Your task to perform on an android device: What's the weather going to be tomorrow? Image 0: 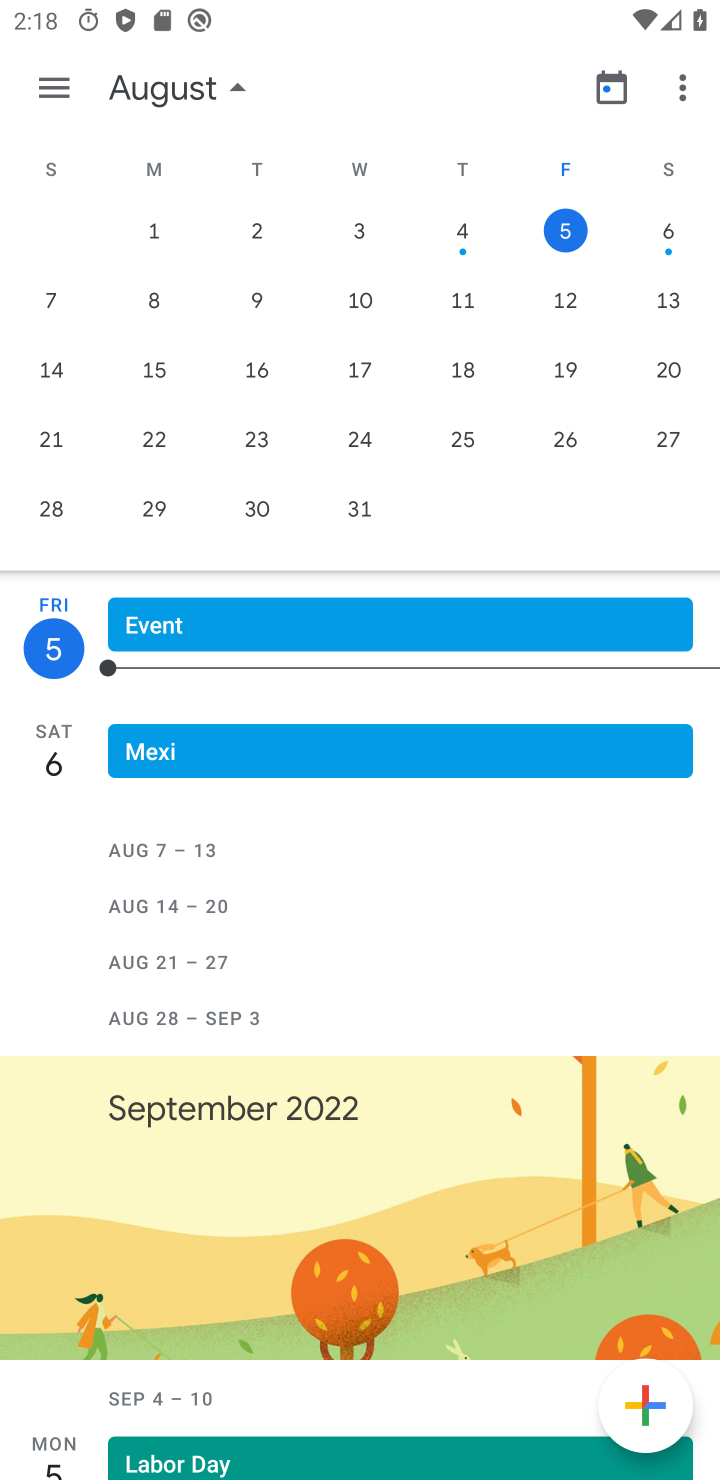
Step 0: drag from (497, 60) to (432, 13)
Your task to perform on an android device: What's the weather going to be tomorrow? Image 1: 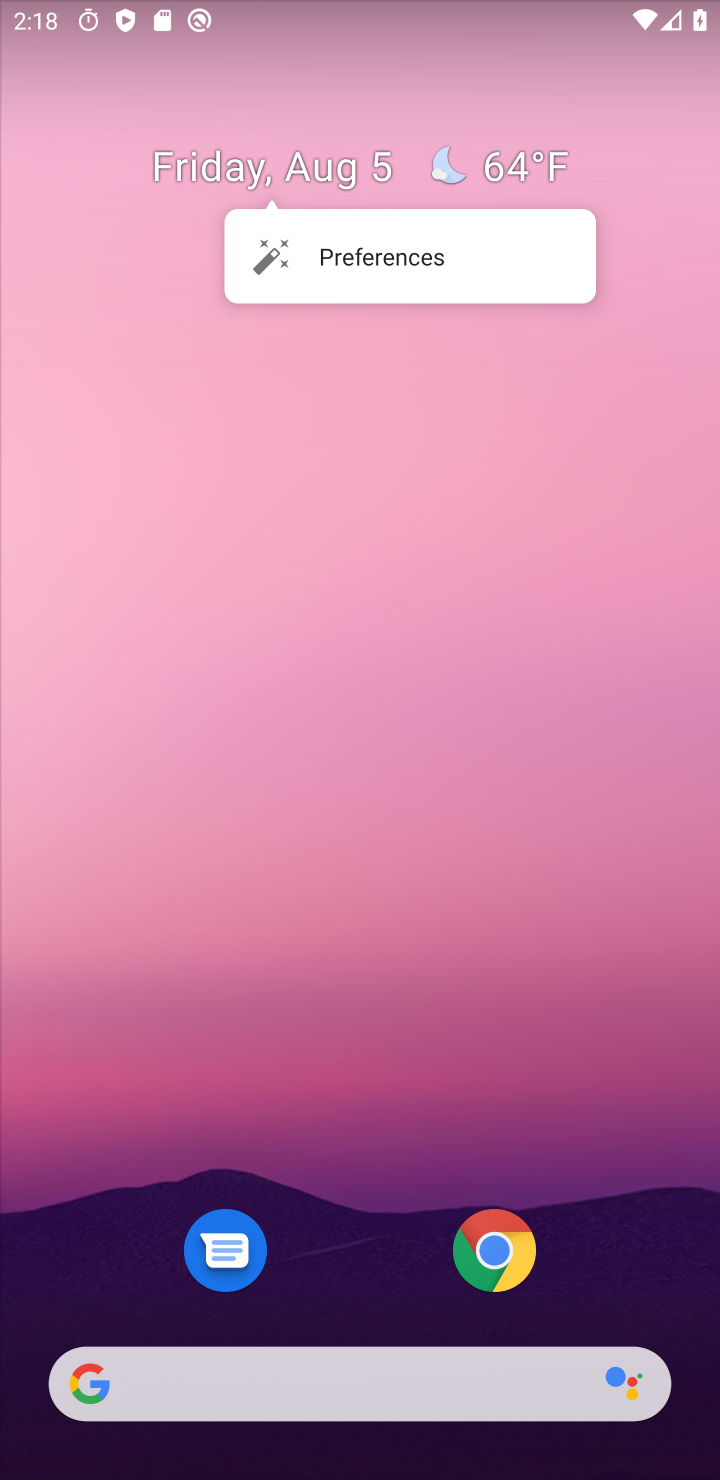
Step 1: drag from (362, 1298) to (440, 330)
Your task to perform on an android device: What's the weather going to be tomorrow? Image 2: 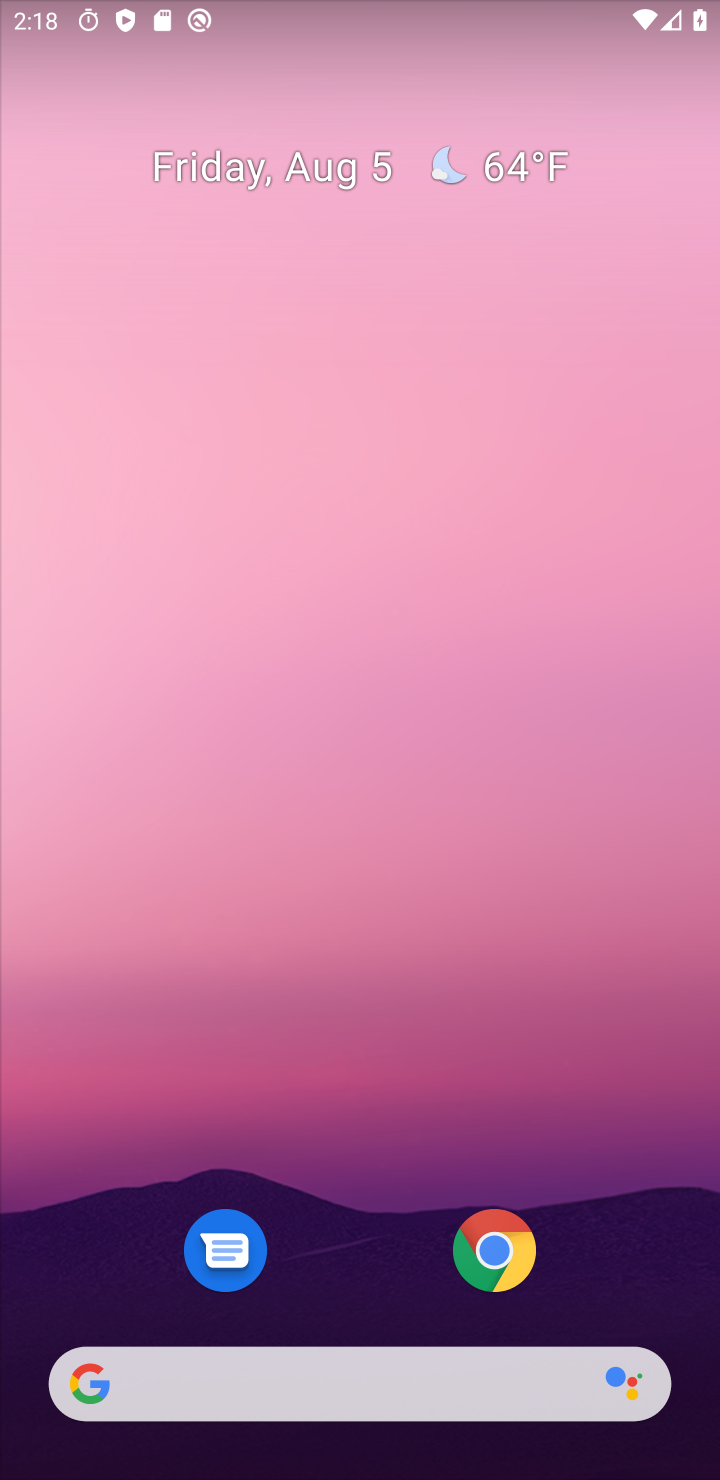
Step 2: drag from (367, 1211) to (459, 130)
Your task to perform on an android device: What's the weather going to be tomorrow? Image 3: 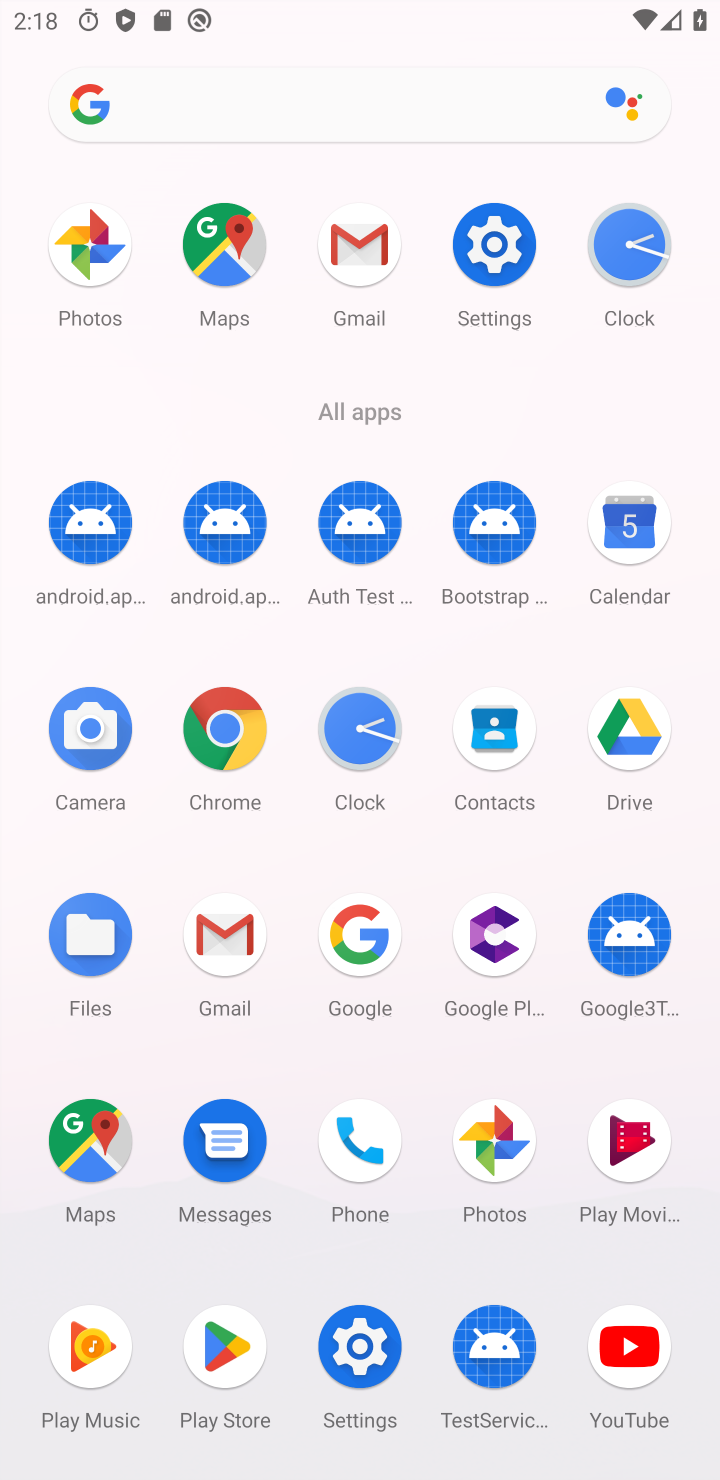
Step 3: click (614, 514)
Your task to perform on an android device: What's the weather going to be tomorrow? Image 4: 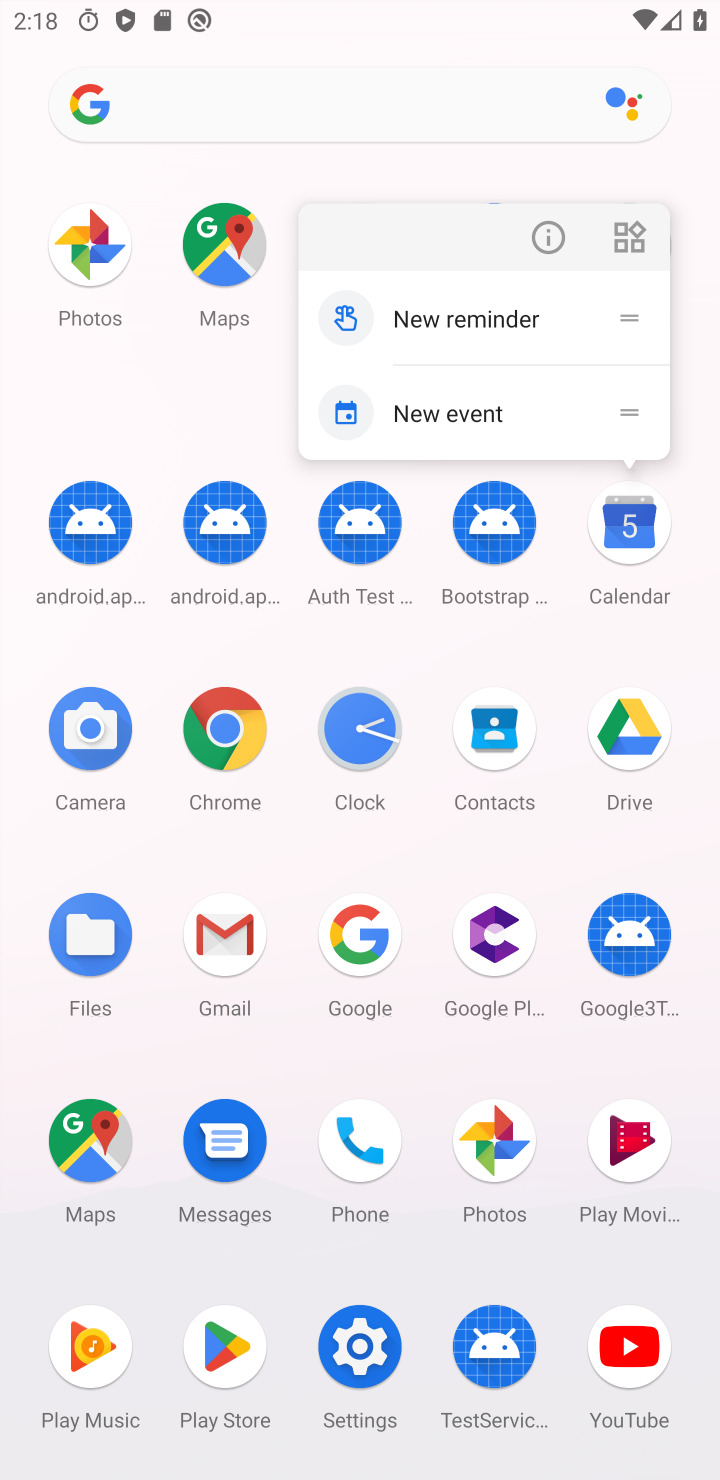
Step 4: click (542, 246)
Your task to perform on an android device: What's the weather going to be tomorrow? Image 5: 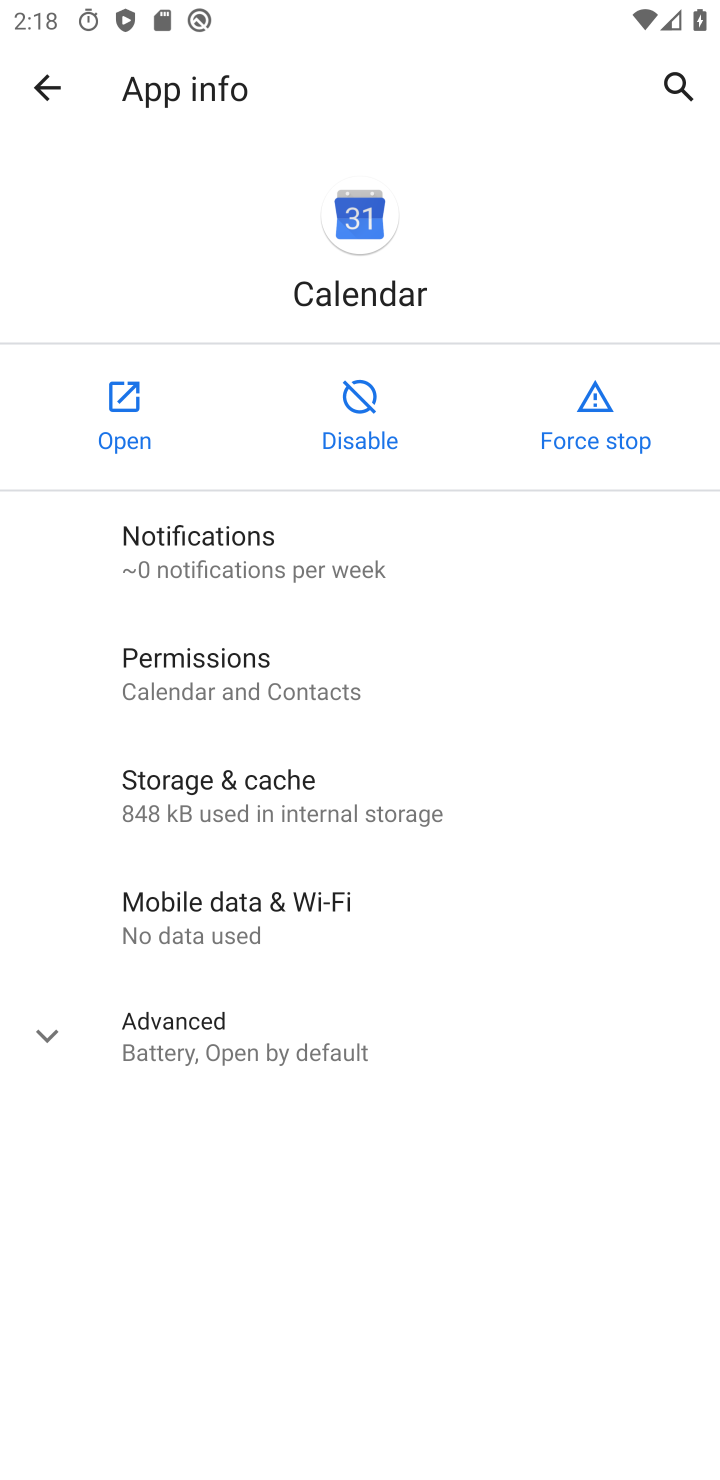
Step 5: click (120, 438)
Your task to perform on an android device: What's the weather going to be tomorrow? Image 6: 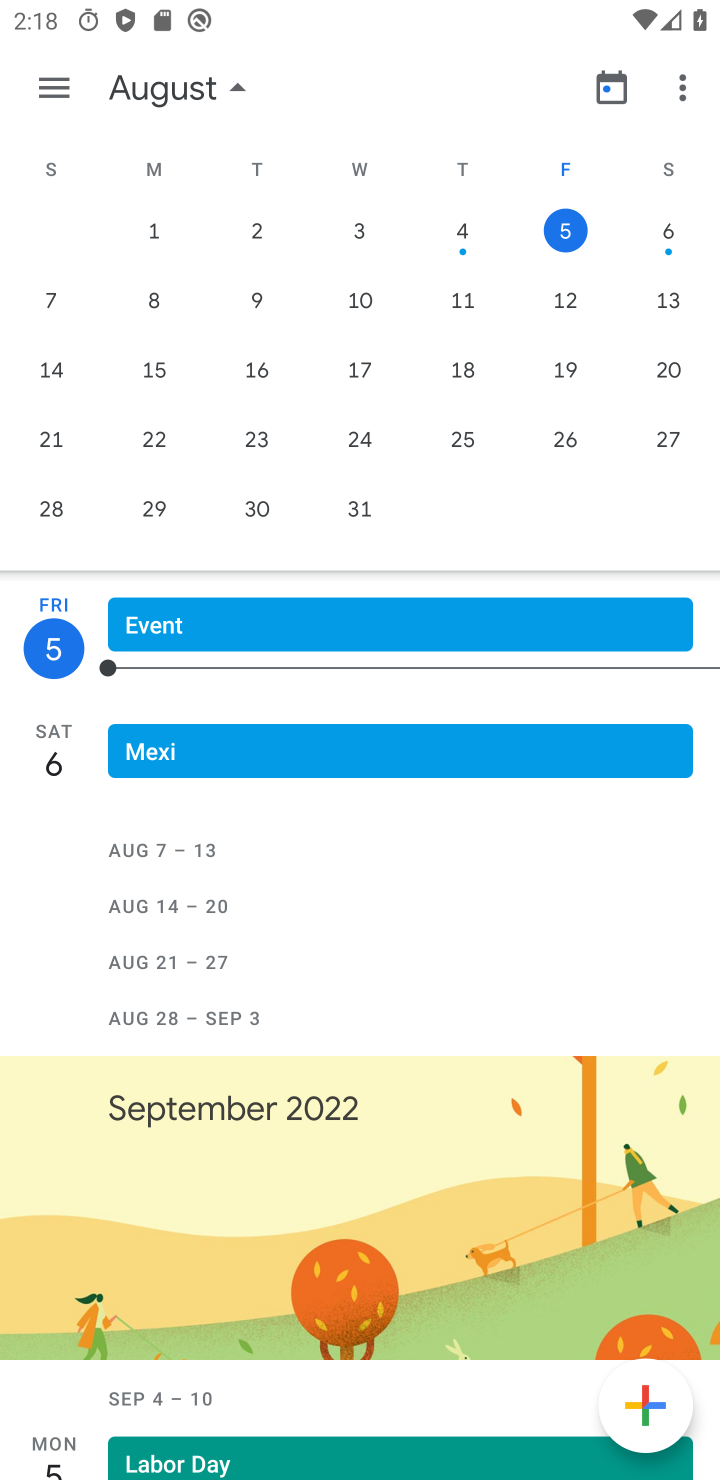
Step 6: press home button
Your task to perform on an android device: What's the weather going to be tomorrow? Image 7: 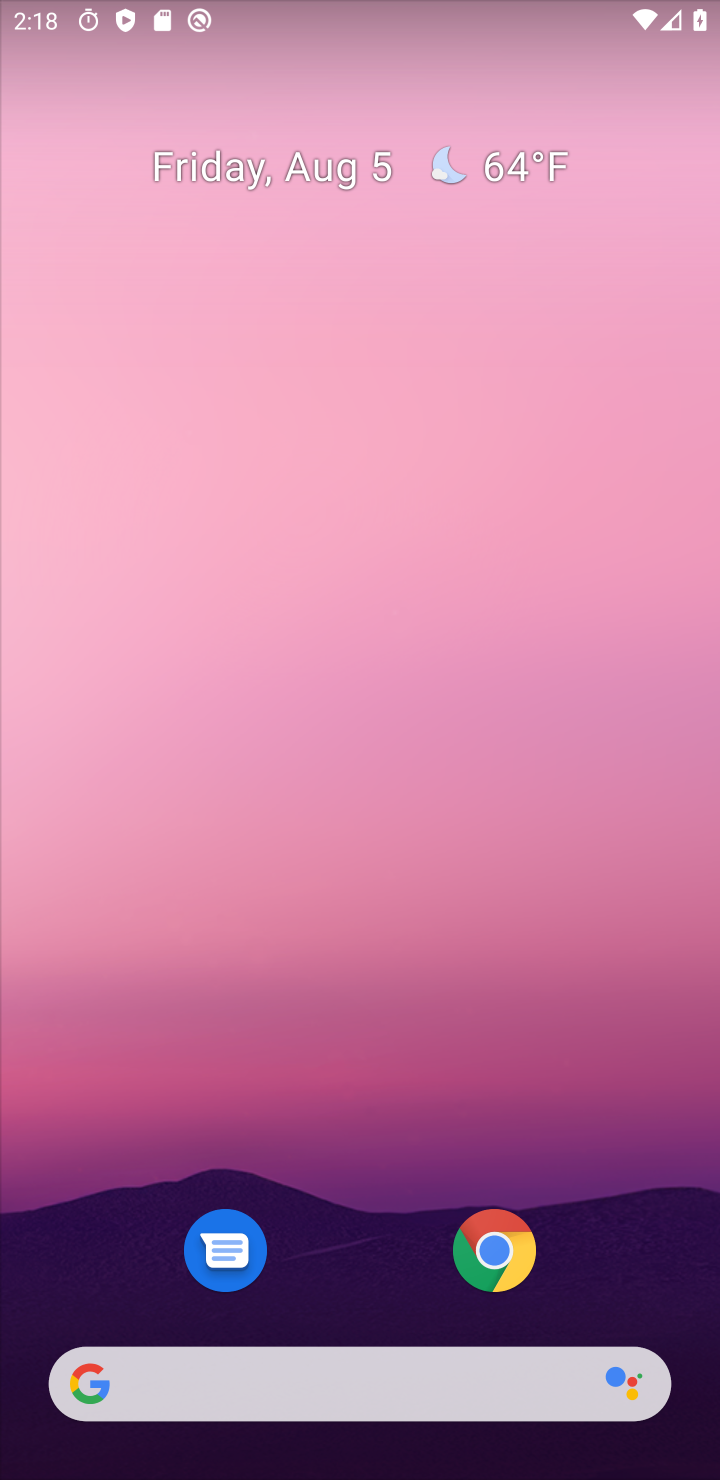
Step 7: click (284, 1393)
Your task to perform on an android device: What's the weather going to be tomorrow? Image 8: 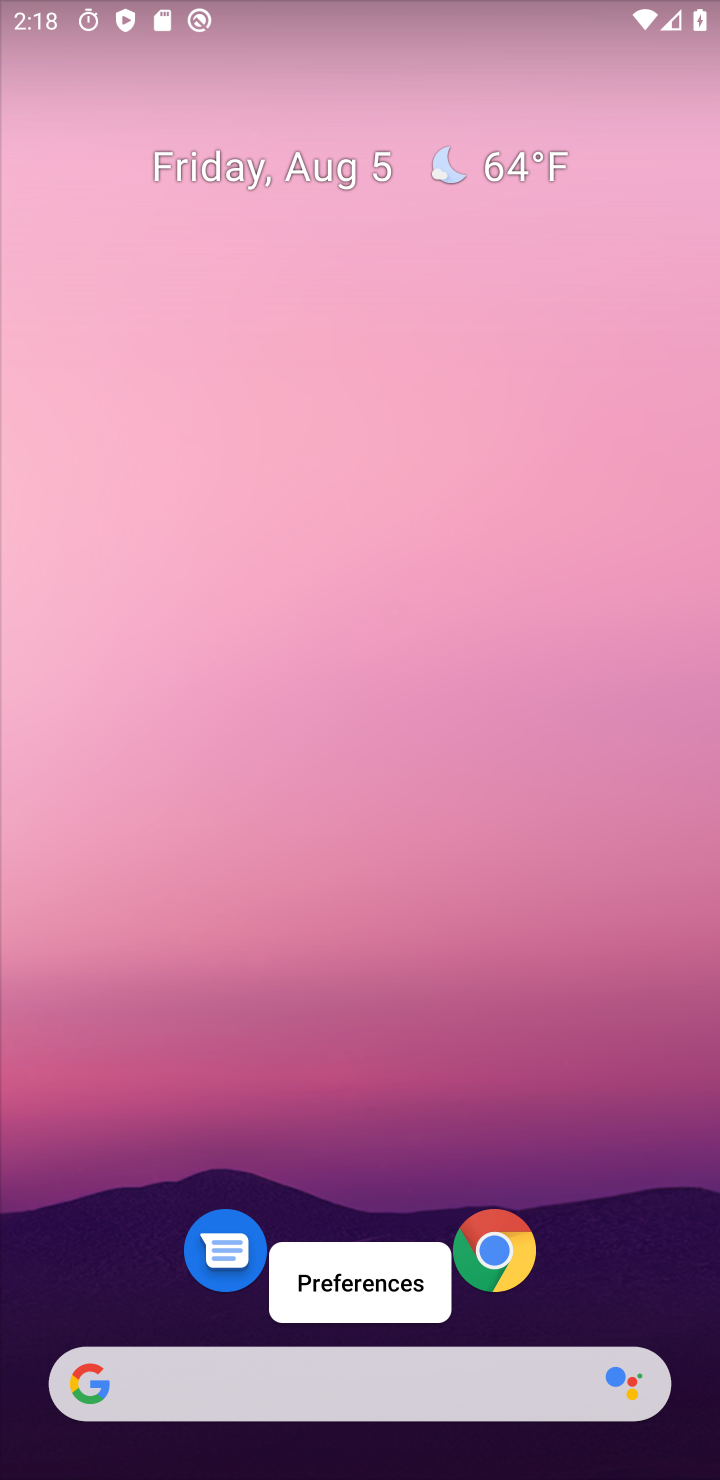
Step 8: click (336, 1356)
Your task to perform on an android device: What's the weather going to be tomorrow? Image 9: 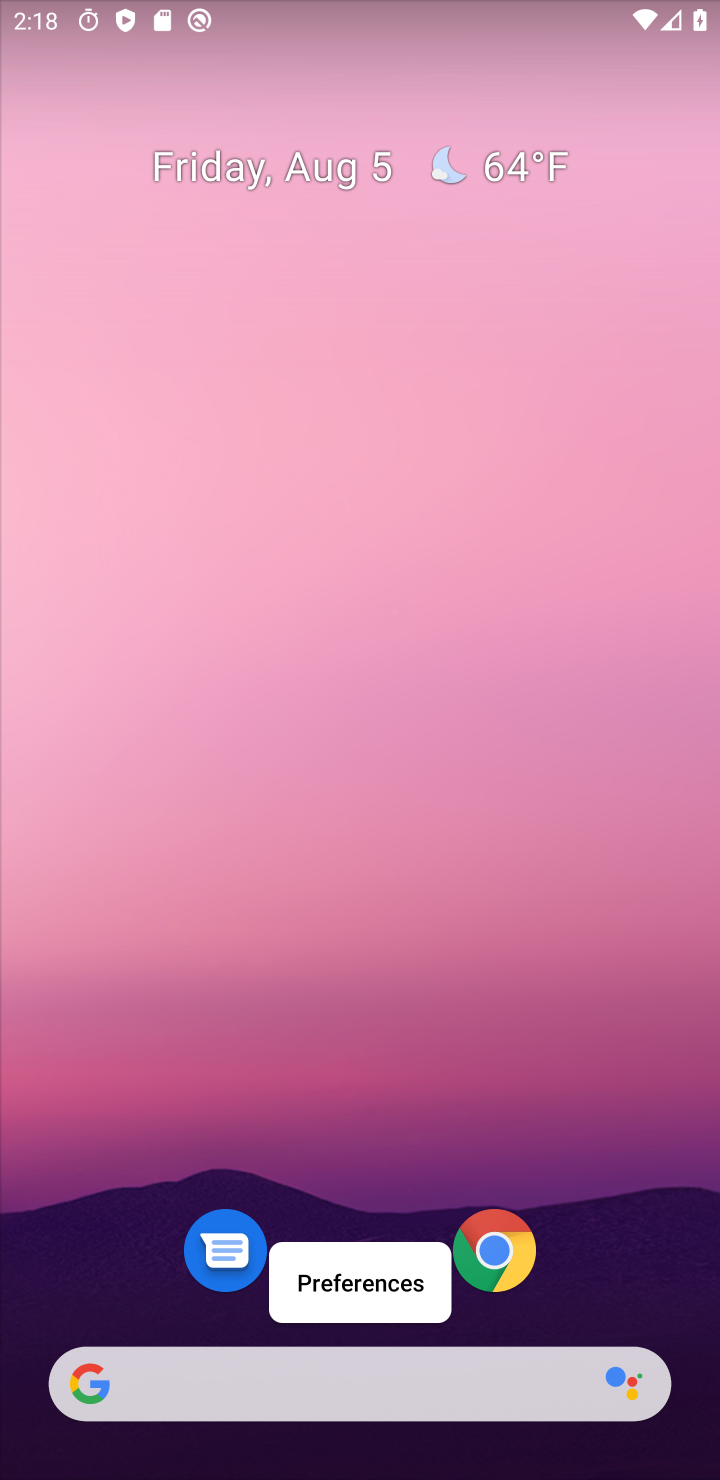
Step 9: click (336, 1356)
Your task to perform on an android device: What's the weather going to be tomorrow? Image 10: 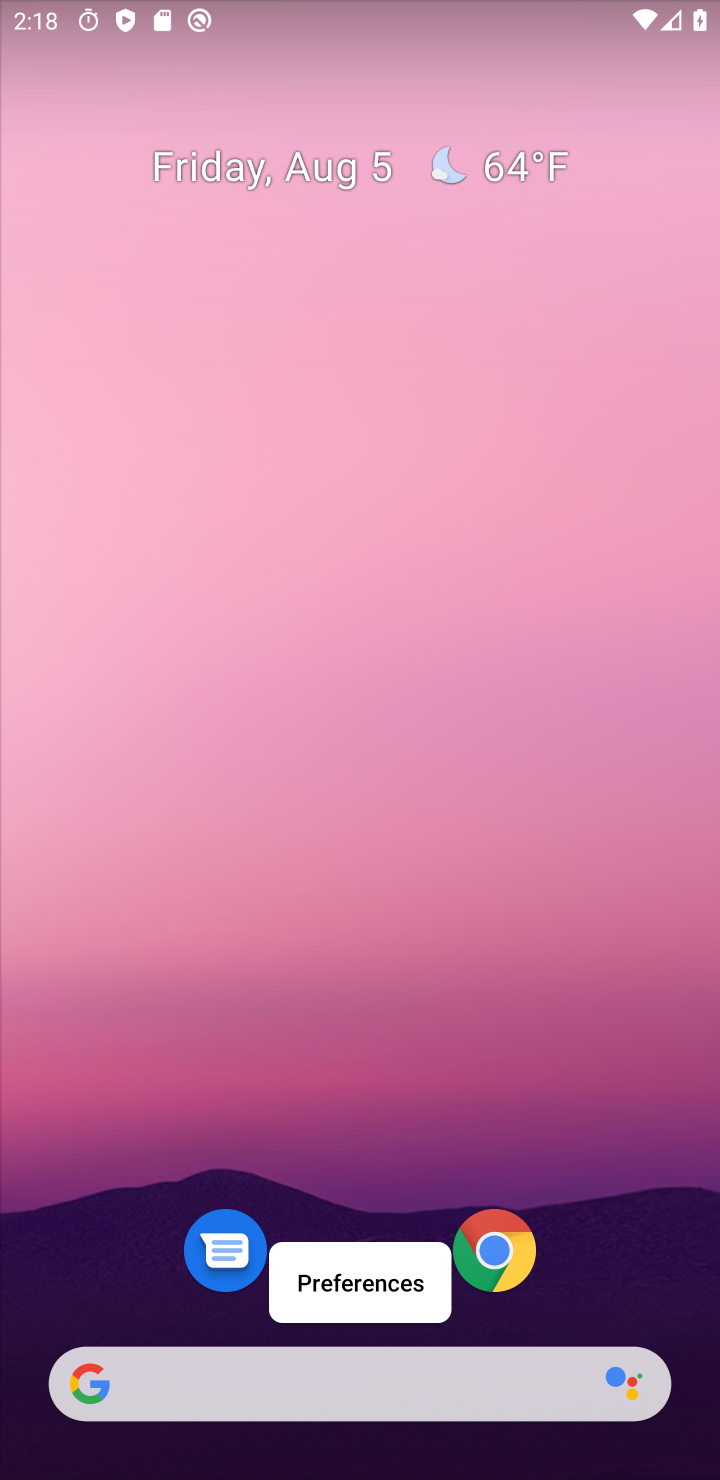
Step 10: click (498, 1244)
Your task to perform on an android device: What's the weather going to be tomorrow? Image 11: 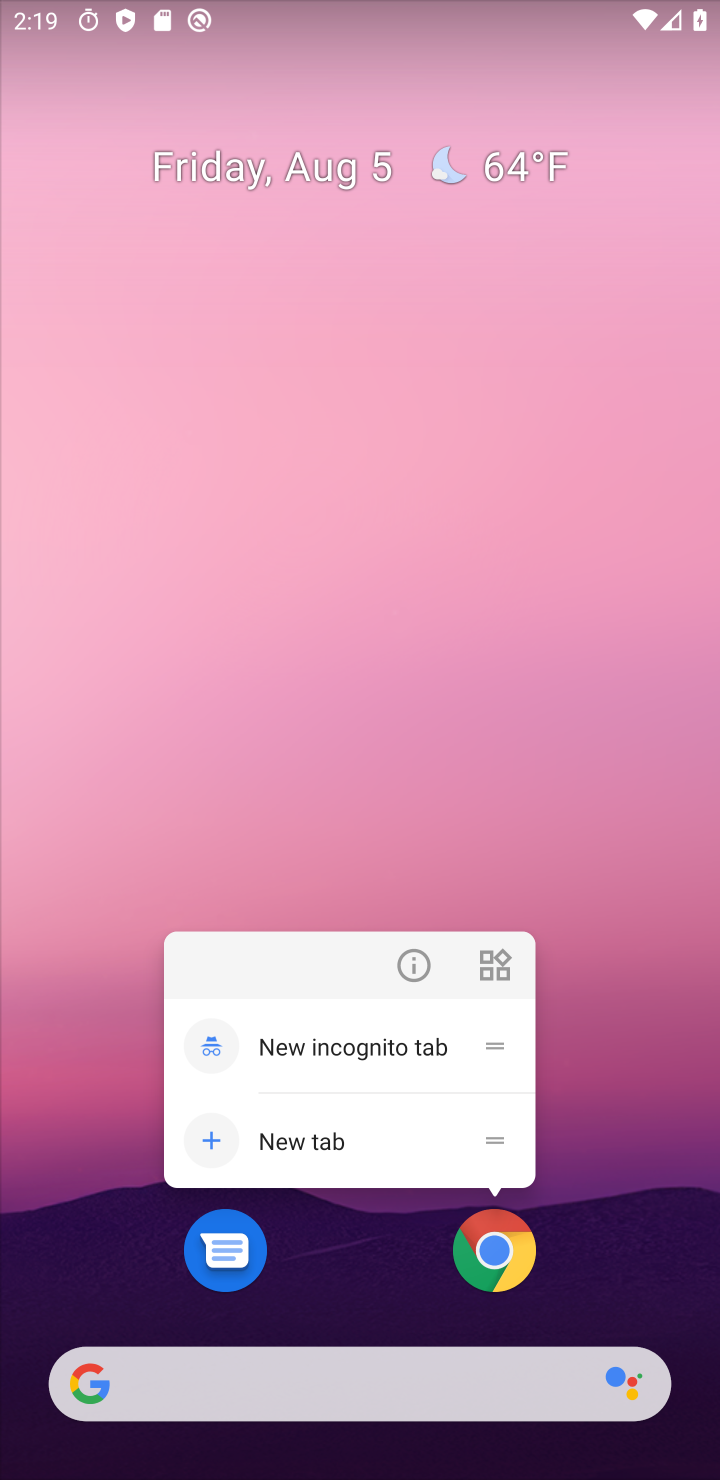
Step 11: click (413, 965)
Your task to perform on an android device: What's the weather going to be tomorrow? Image 12: 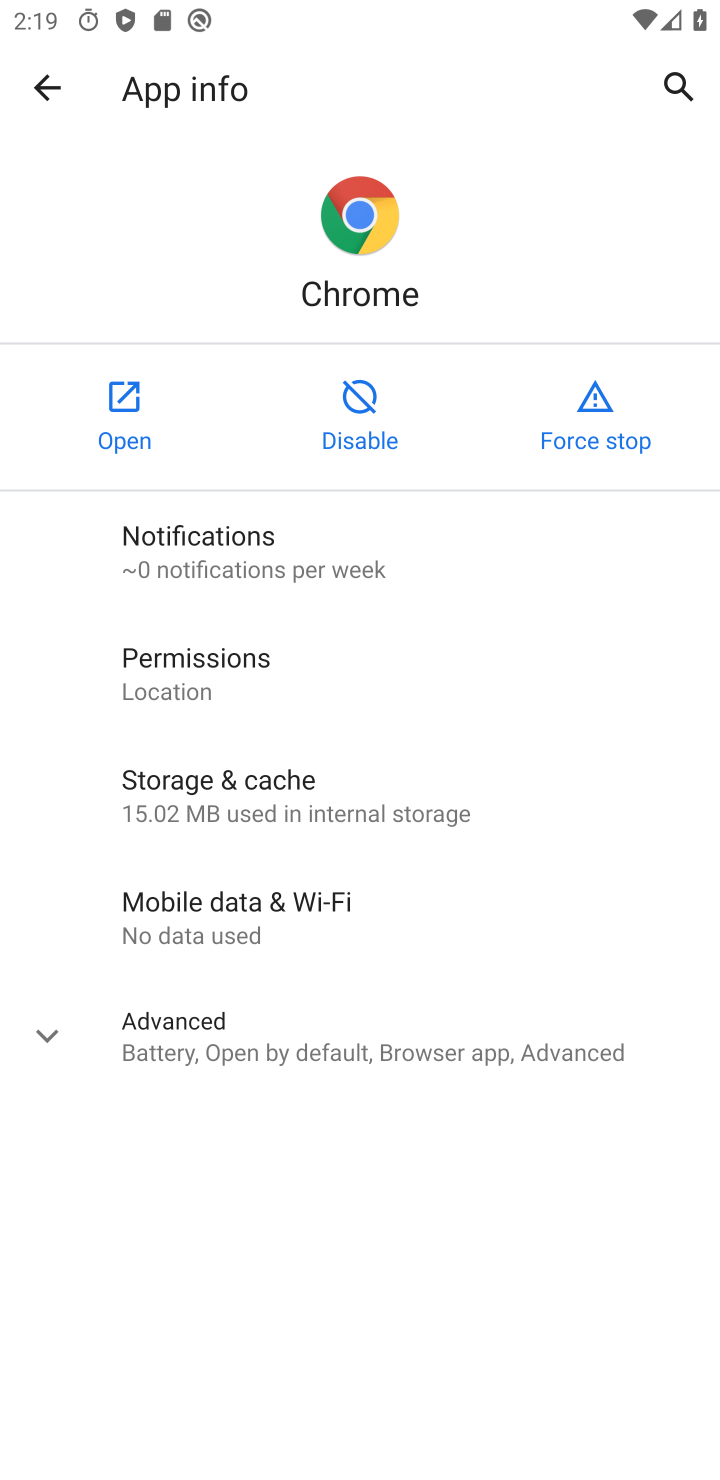
Step 12: click (127, 430)
Your task to perform on an android device: What's the weather going to be tomorrow? Image 13: 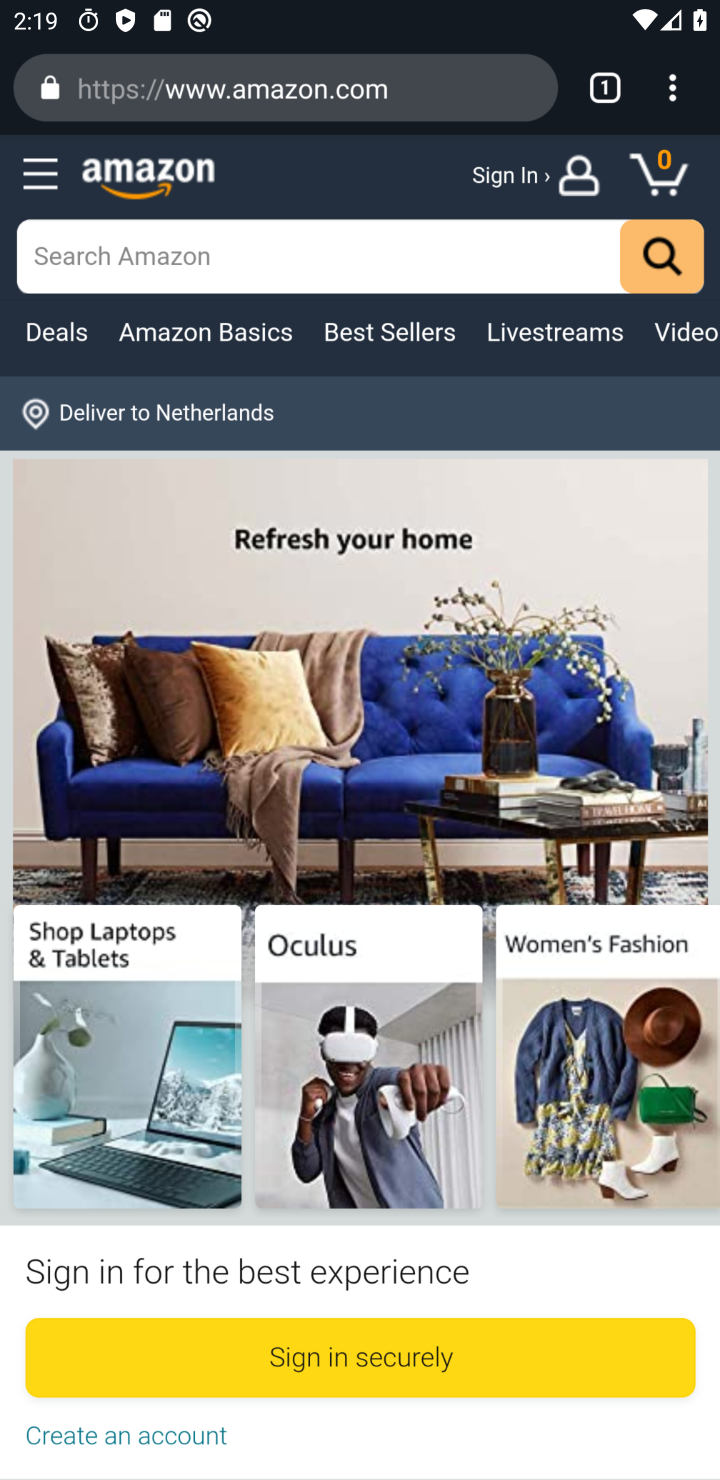
Step 13: drag from (442, 1129) to (526, 767)
Your task to perform on an android device: What's the weather going to be tomorrow? Image 14: 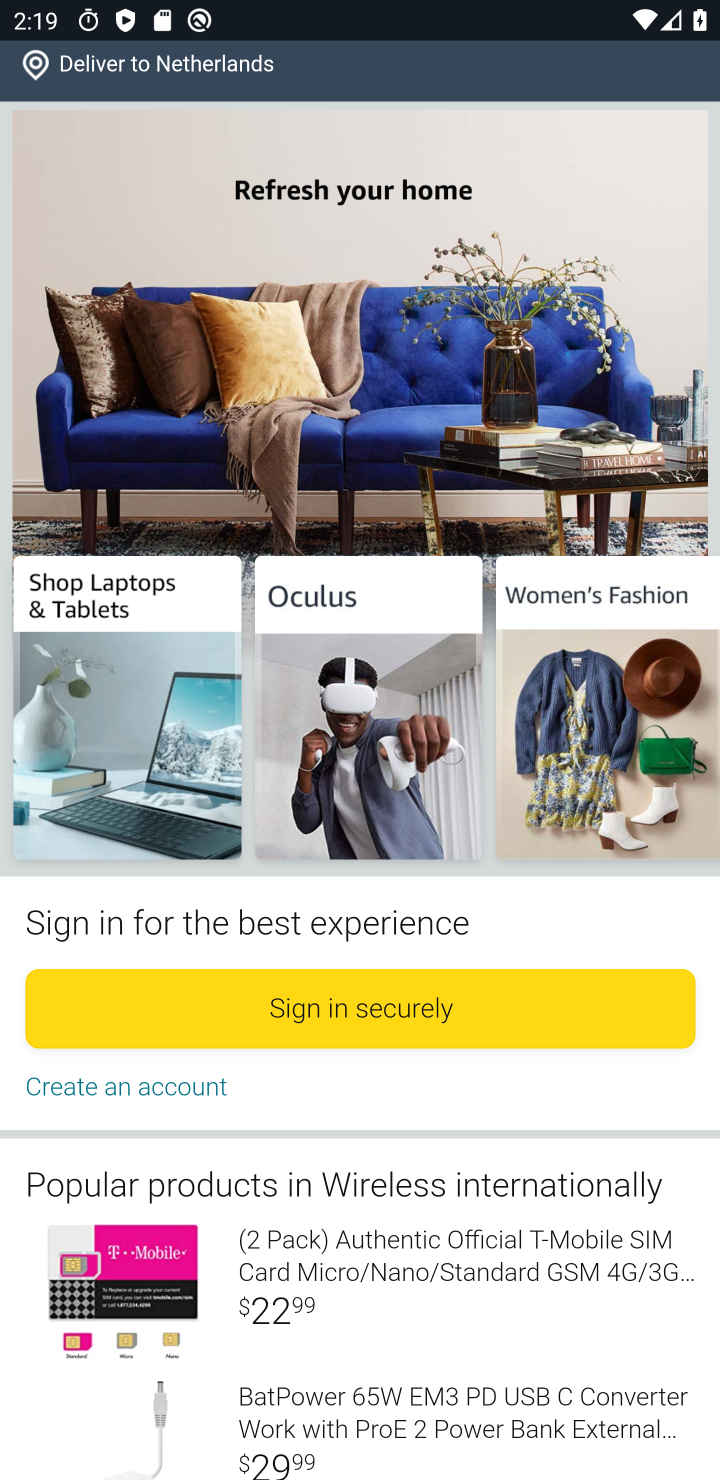
Step 14: drag from (315, 233) to (480, 1386)
Your task to perform on an android device: What's the weather going to be tomorrow? Image 15: 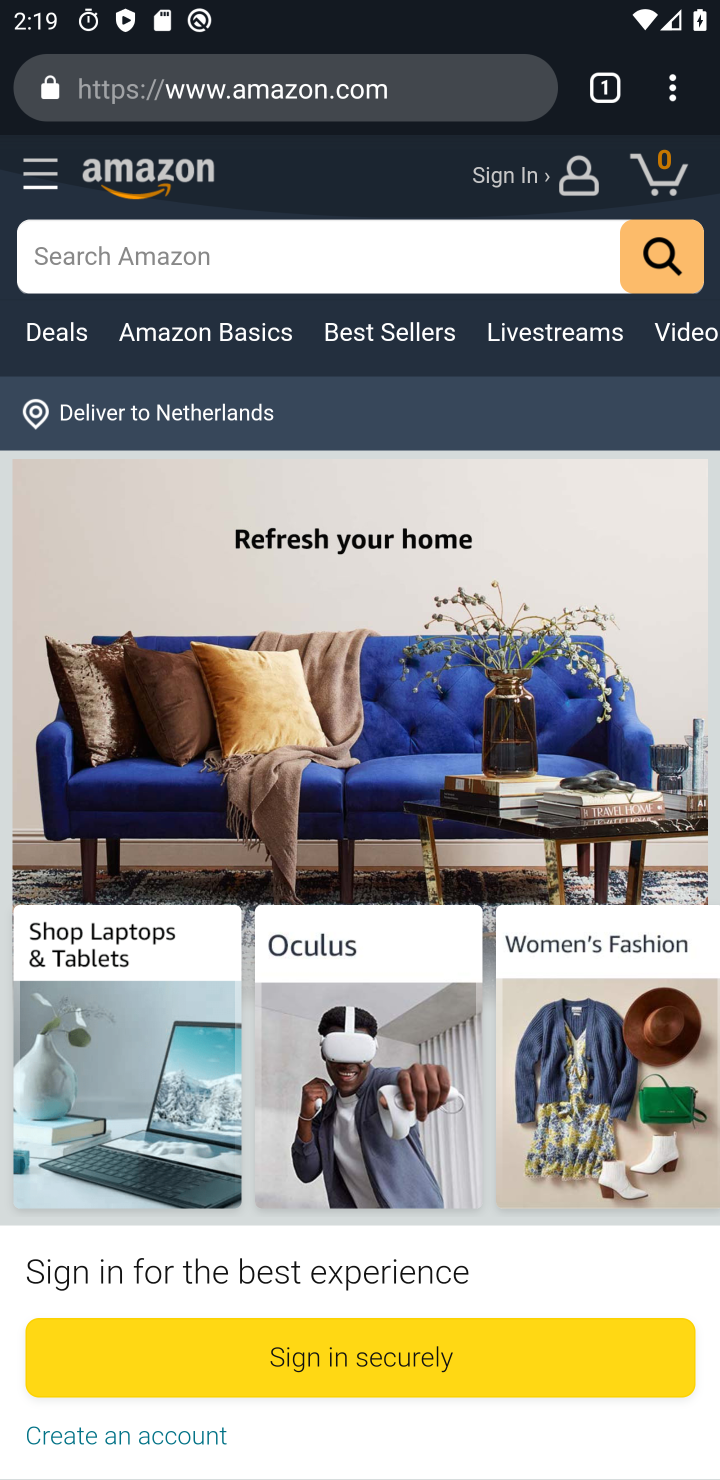
Step 15: drag from (350, 265) to (304, 95)
Your task to perform on an android device: What's the weather going to be tomorrow? Image 16: 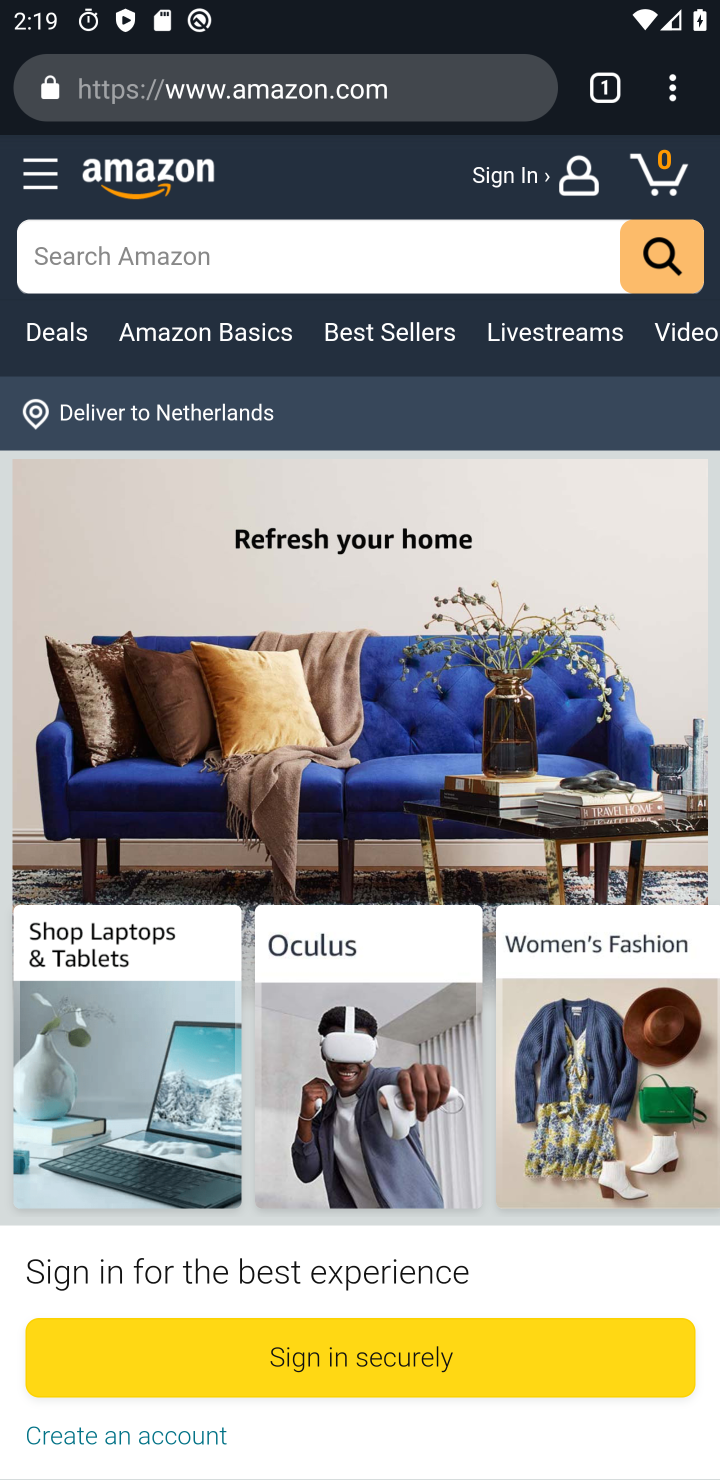
Step 16: click (304, 95)
Your task to perform on an android device: What's the weather going to be tomorrow? Image 17: 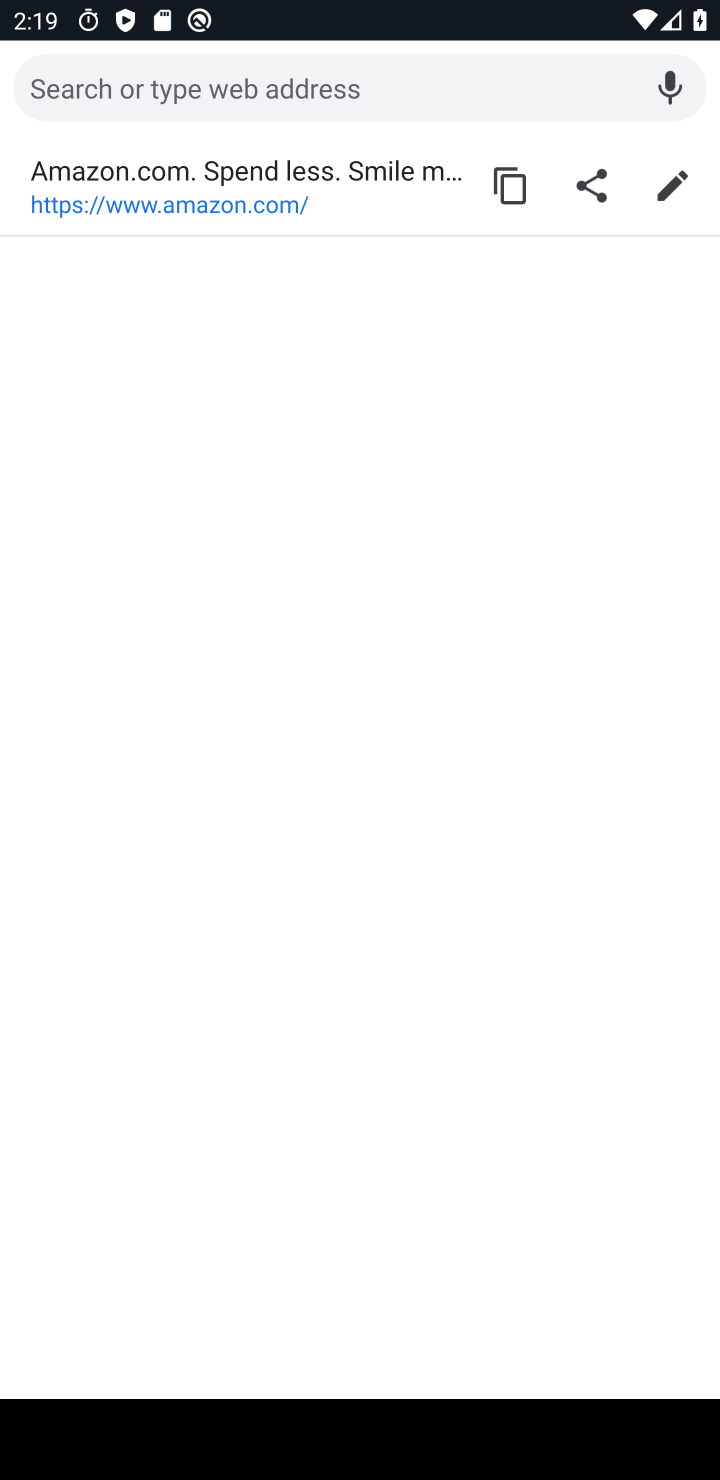
Step 17: type "What's the weather going to be tomorrow?"
Your task to perform on an android device: What's the weather going to be tomorrow? Image 18: 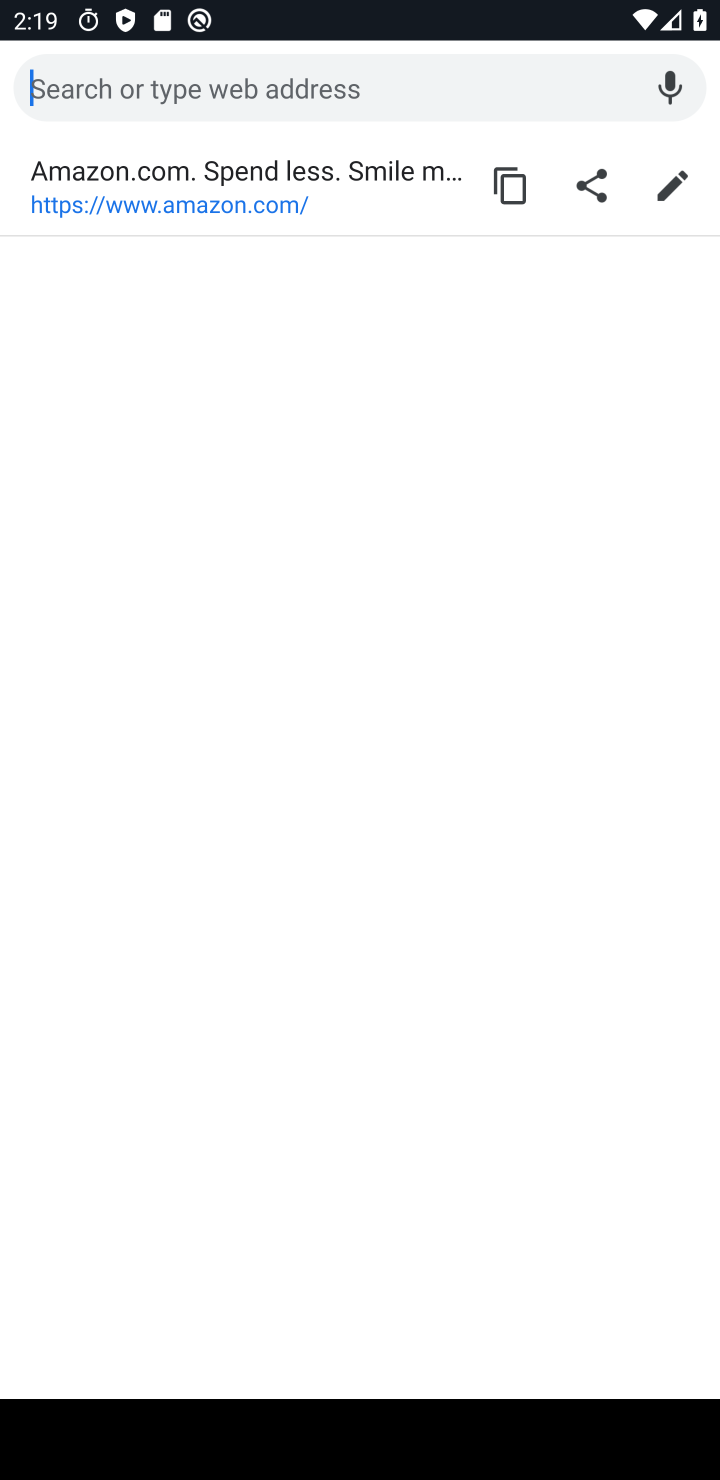
Step 18: drag from (439, 1207) to (355, 366)
Your task to perform on an android device: What's the weather going to be tomorrow? Image 19: 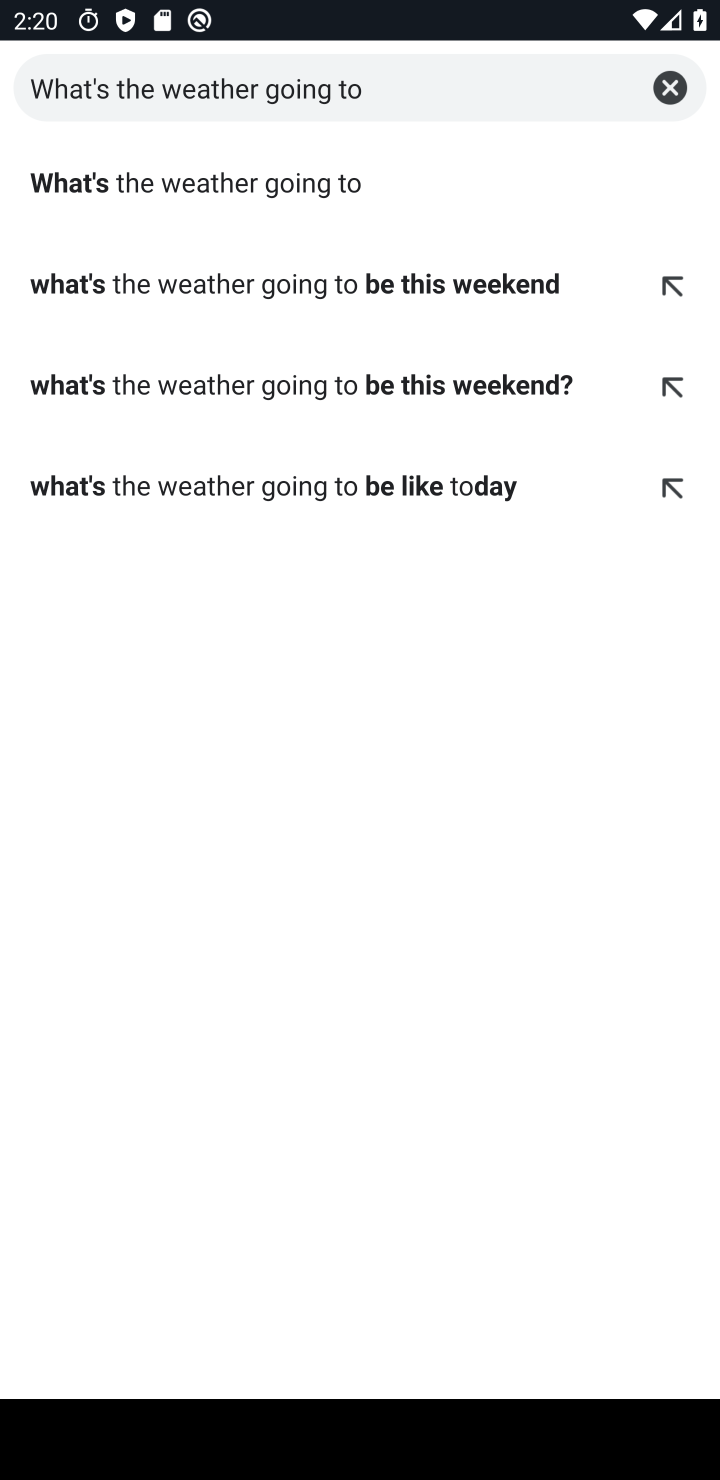
Step 19: click (216, 200)
Your task to perform on an android device: What's the weather going to be tomorrow? Image 20: 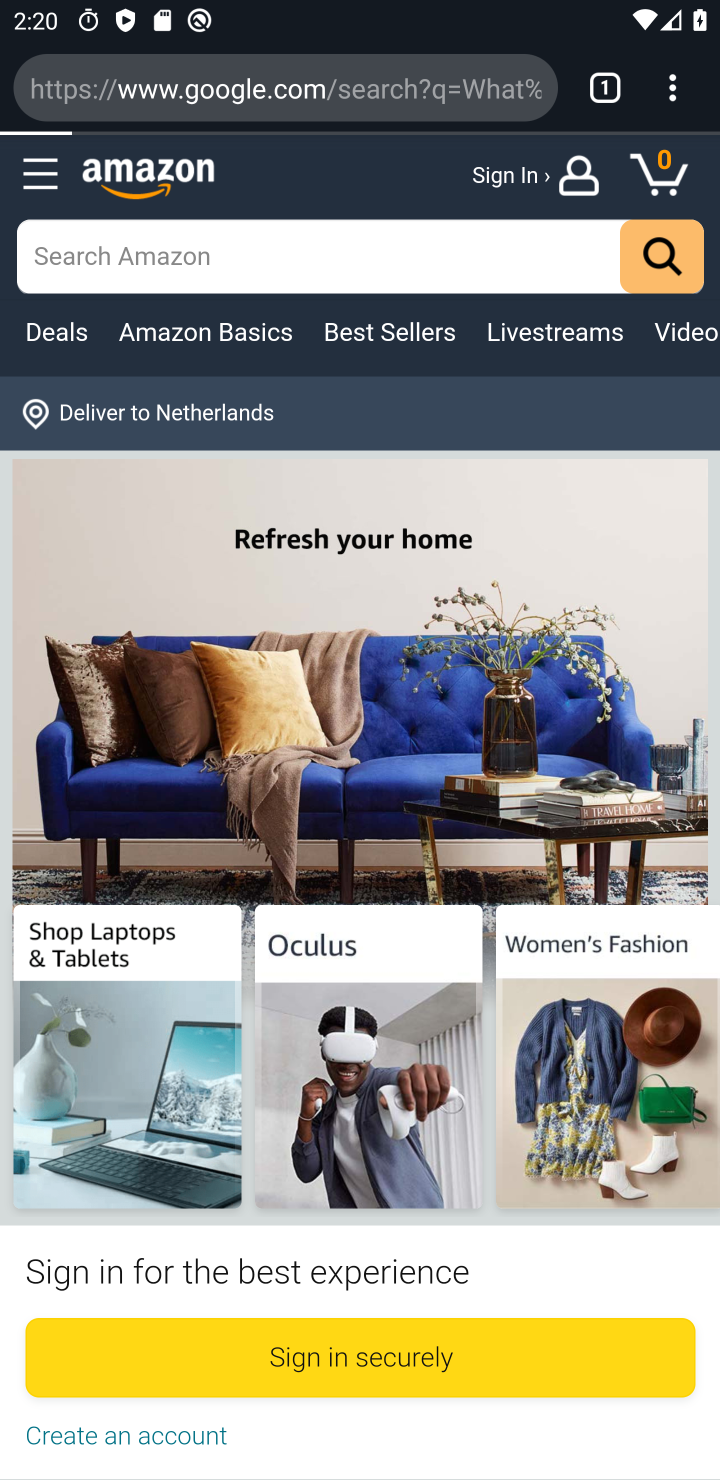
Step 20: task complete